Your task to perform on an android device: turn vacation reply on in the gmail app Image 0: 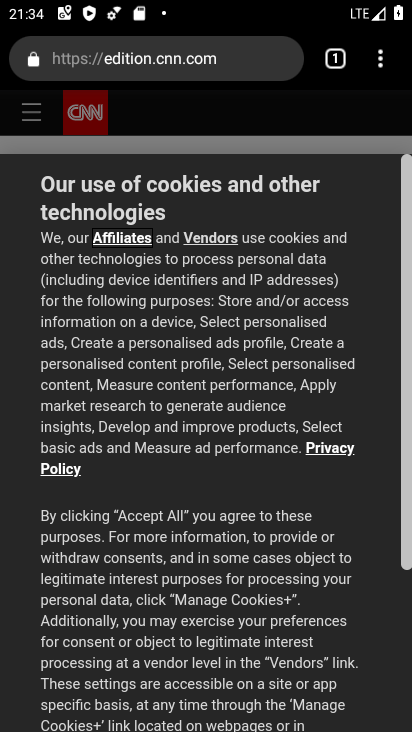
Step 0: click (372, 53)
Your task to perform on an android device: turn vacation reply on in the gmail app Image 1: 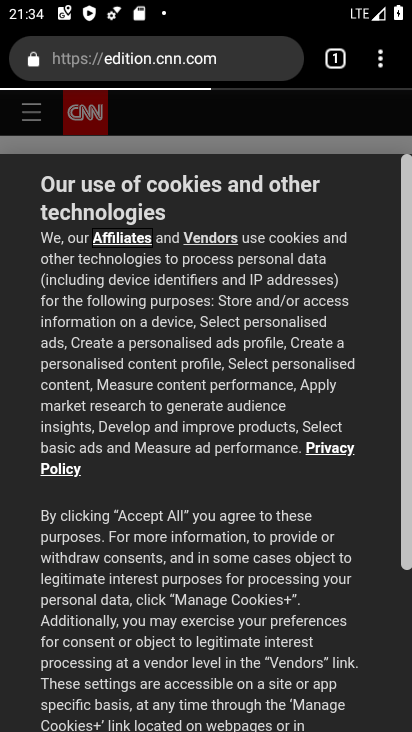
Step 1: press back button
Your task to perform on an android device: turn vacation reply on in the gmail app Image 2: 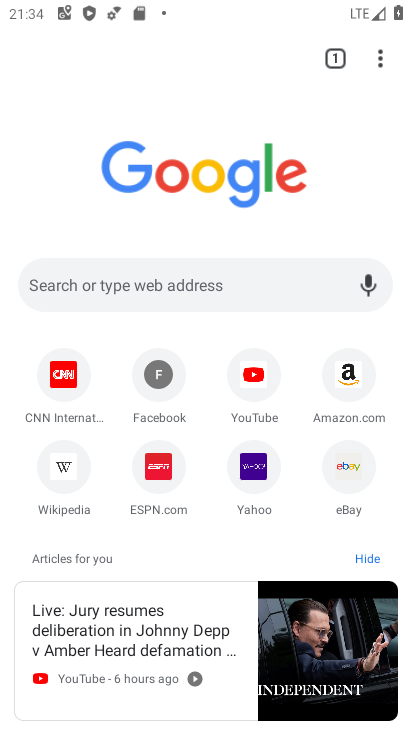
Step 2: press back button
Your task to perform on an android device: turn vacation reply on in the gmail app Image 3: 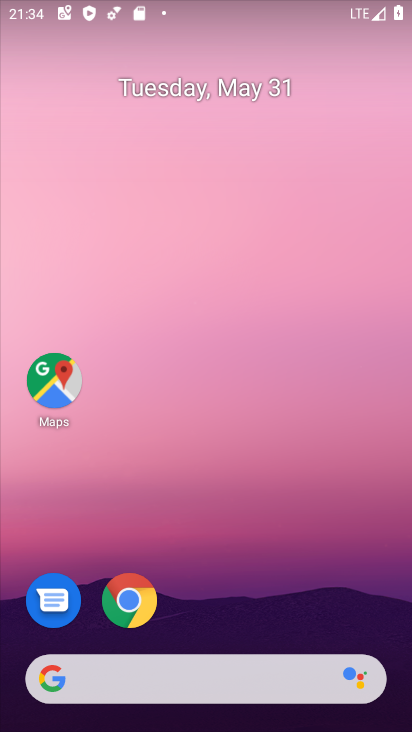
Step 3: drag from (225, 528) to (314, 18)
Your task to perform on an android device: turn vacation reply on in the gmail app Image 4: 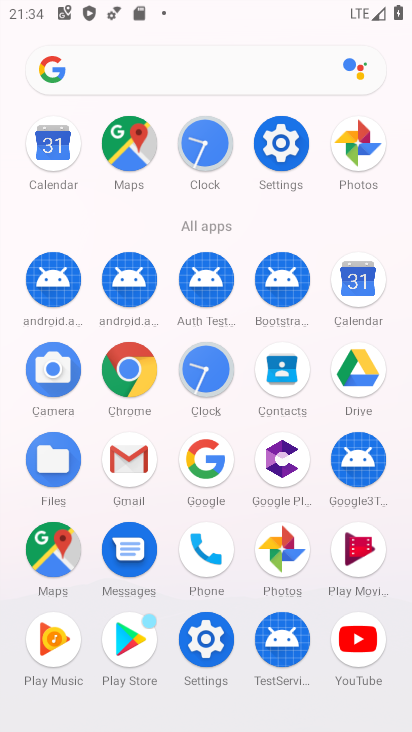
Step 4: click (144, 455)
Your task to perform on an android device: turn vacation reply on in the gmail app Image 5: 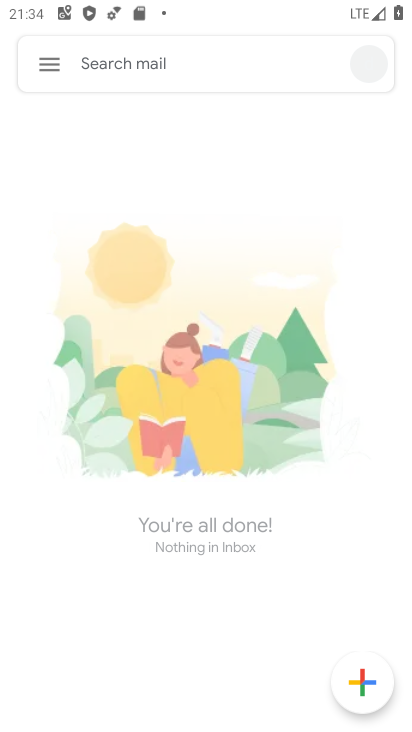
Step 5: click (50, 70)
Your task to perform on an android device: turn vacation reply on in the gmail app Image 6: 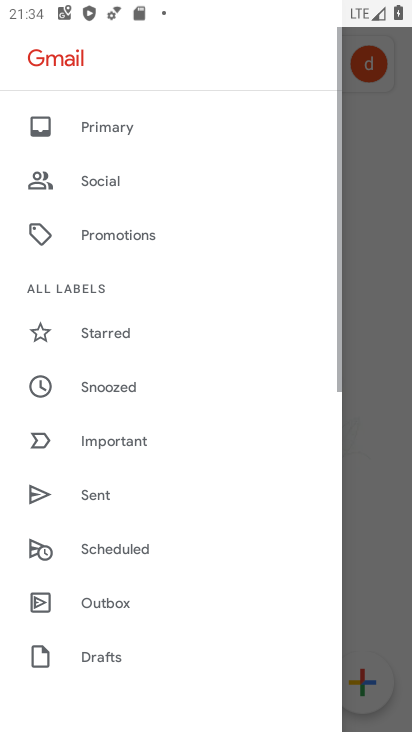
Step 6: drag from (196, 632) to (237, 89)
Your task to perform on an android device: turn vacation reply on in the gmail app Image 7: 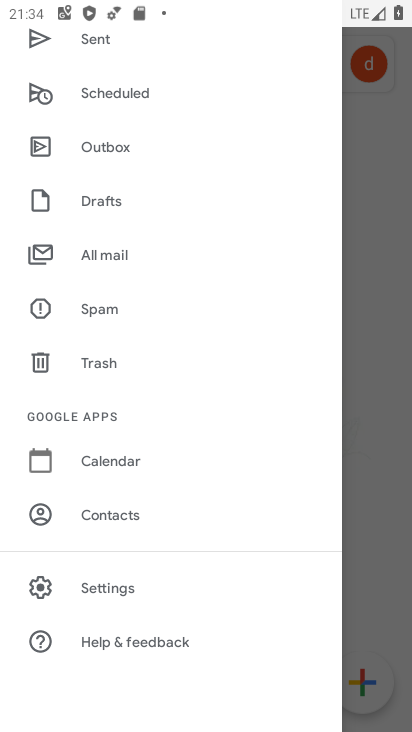
Step 7: click (94, 588)
Your task to perform on an android device: turn vacation reply on in the gmail app Image 8: 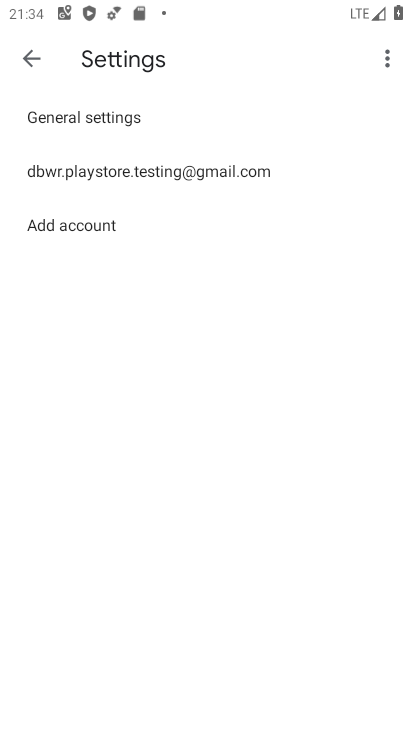
Step 8: click (126, 170)
Your task to perform on an android device: turn vacation reply on in the gmail app Image 9: 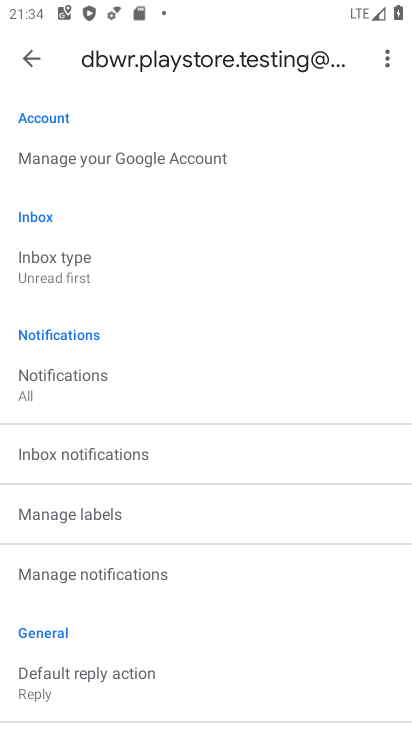
Step 9: drag from (108, 694) to (172, 103)
Your task to perform on an android device: turn vacation reply on in the gmail app Image 10: 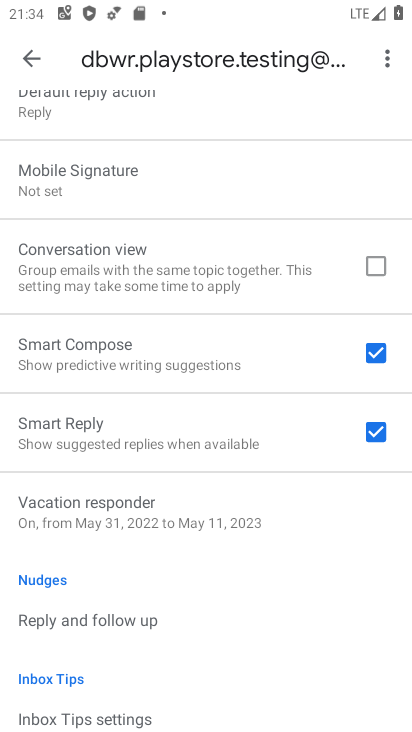
Step 10: click (163, 510)
Your task to perform on an android device: turn vacation reply on in the gmail app Image 11: 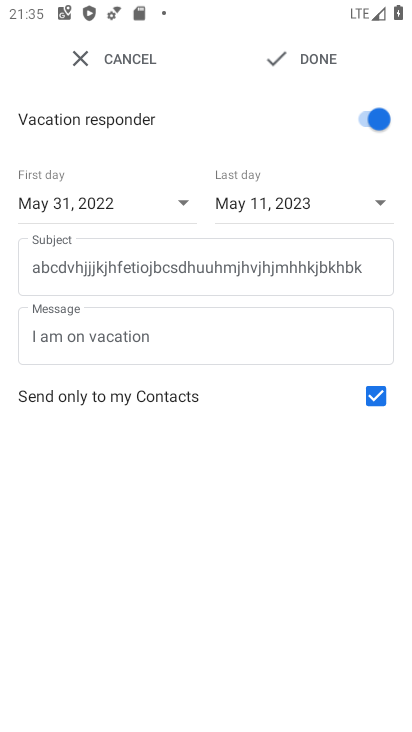
Step 11: task complete